Your task to perform on an android device: delete location history Image 0: 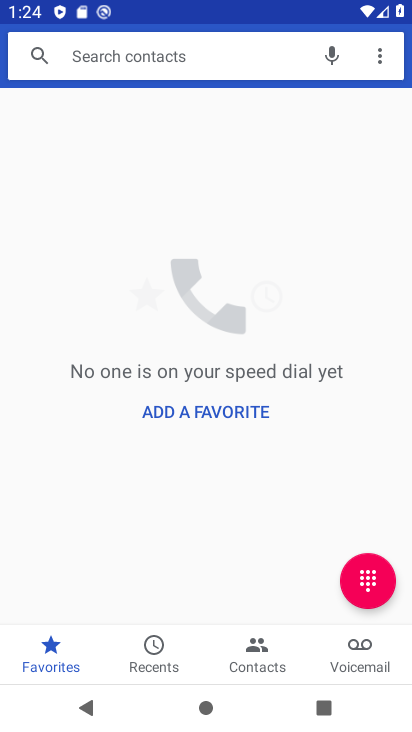
Step 0: press home button
Your task to perform on an android device: delete location history Image 1: 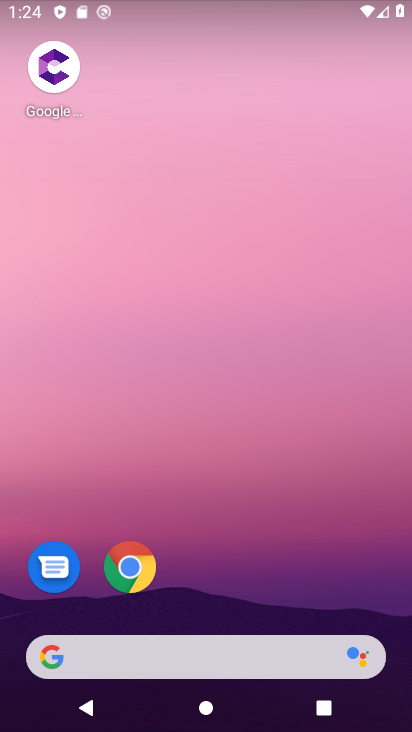
Step 1: drag from (244, 468) to (189, 4)
Your task to perform on an android device: delete location history Image 2: 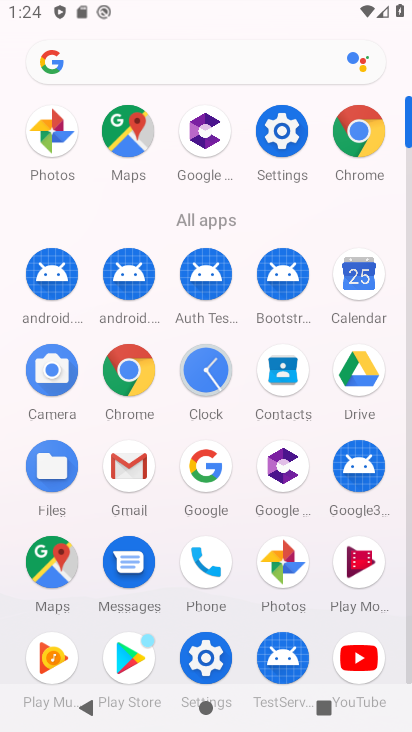
Step 2: click (56, 544)
Your task to perform on an android device: delete location history Image 3: 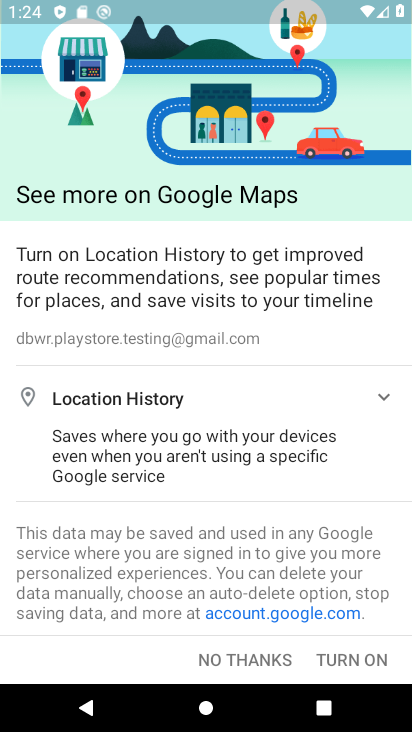
Step 3: click (271, 658)
Your task to perform on an android device: delete location history Image 4: 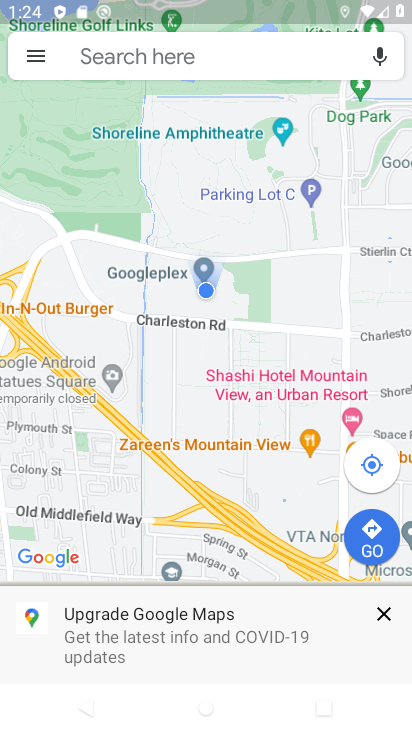
Step 4: click (37, 49)
Your task to perform on an android device: delete location history Image 5: 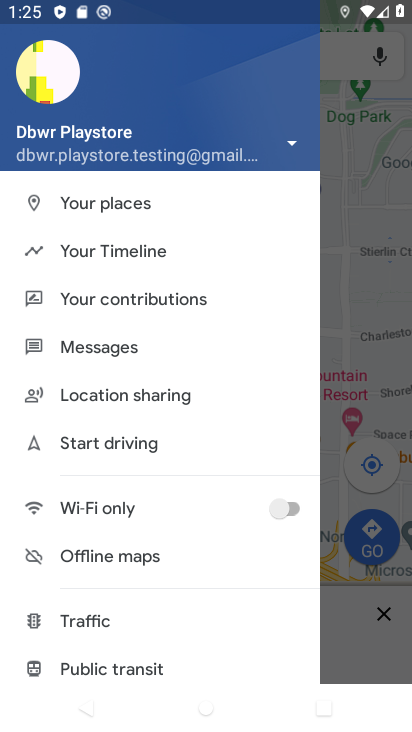
Step 5: drag from (185, 604) to (99, 179)
Your task to perform on an android device: delete location history Image 6: 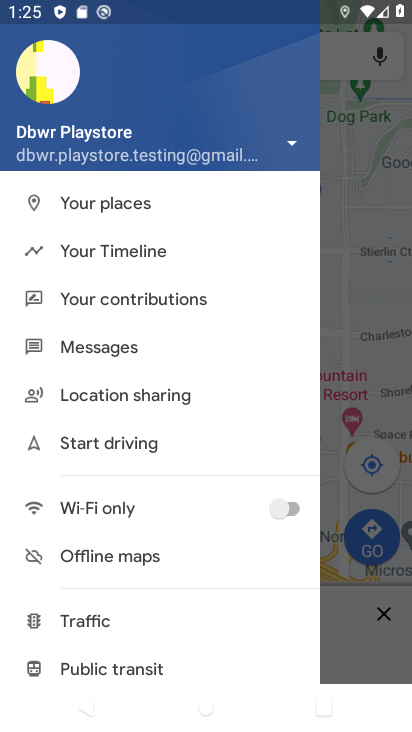
Step 6: click (99, 253)
Your task to perform on an android device: delete location history Image 7: 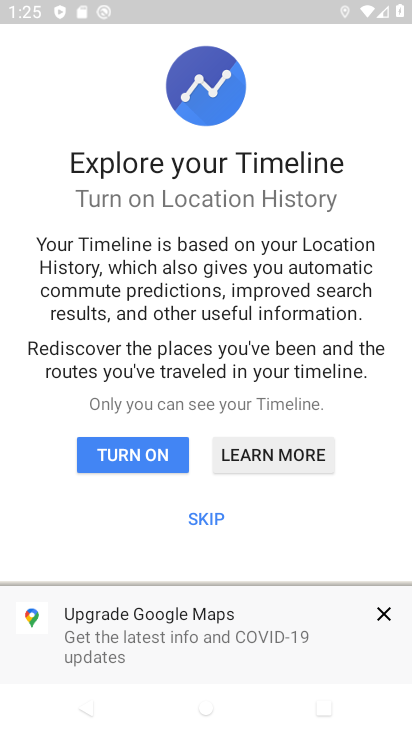
Step 7: click (144, 444)
Your task to perform on an android device: delete location history Image 8: 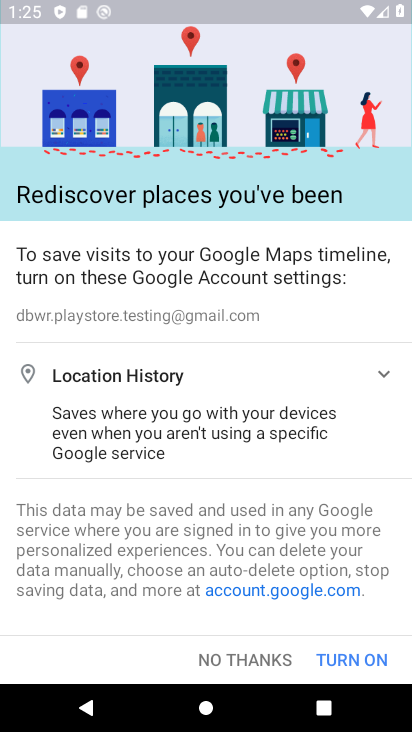
Step 8: click (331, 656)
Your task to perform on an android device: delete location history Image 9: 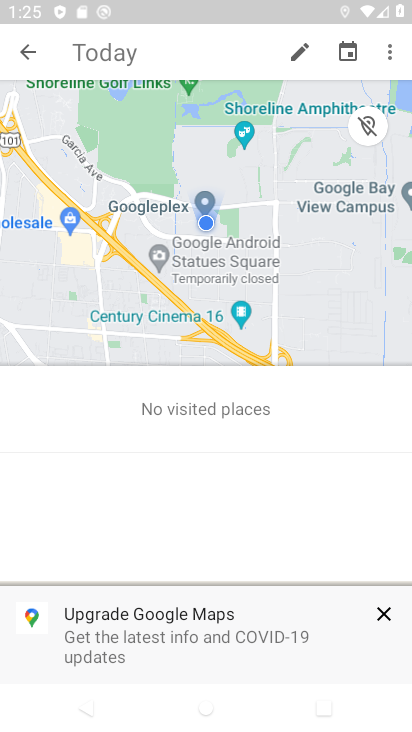
Step 9: click (397, 63)
Your task to perform on an android device: delete location history Image 10: 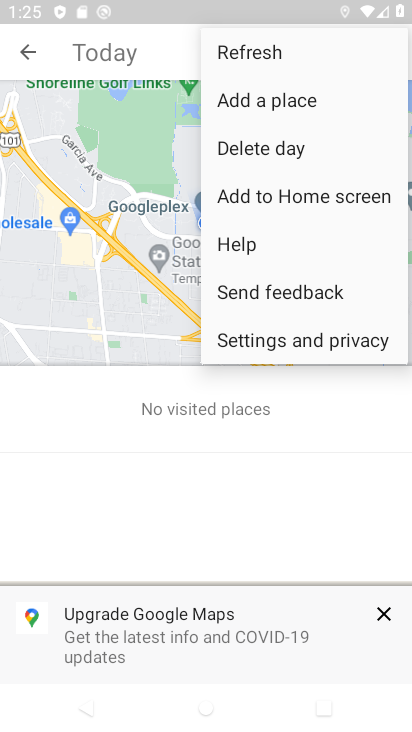
Step 10: click (248, 162)
Your task to perform on an android device: delete location history Image 11: 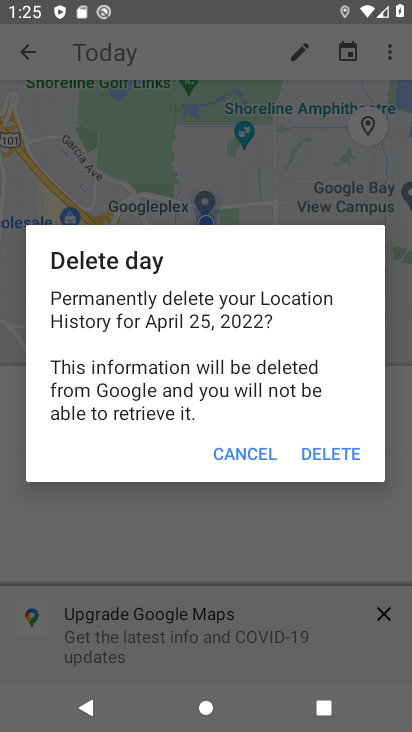
Step 11: click (351, 477)
Your task to perform on an android device: delete location history Image 12: 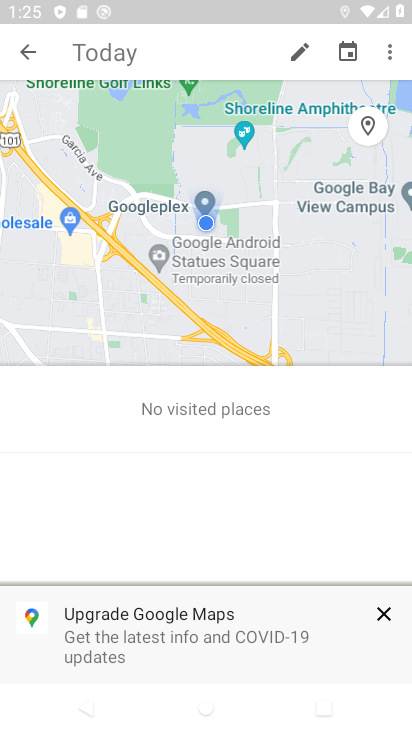
Step 12: click (347, 464)
Your task to perform on an android device: delete location history Image 13: 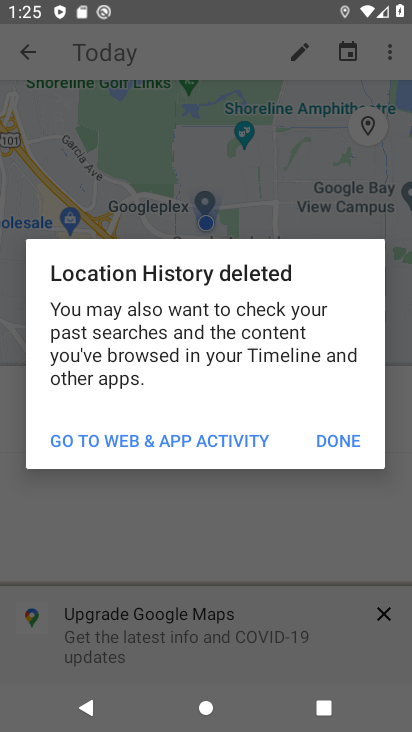
Step 13: click (344, 441)
Your task to perform on an android device: delete location history Image 14: 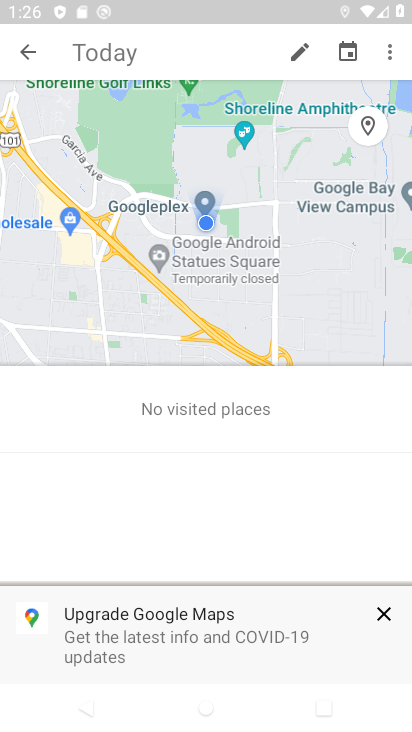
Step 14: task complete